Your task to perform on an android device: find which apps use the phone's location Image 0: 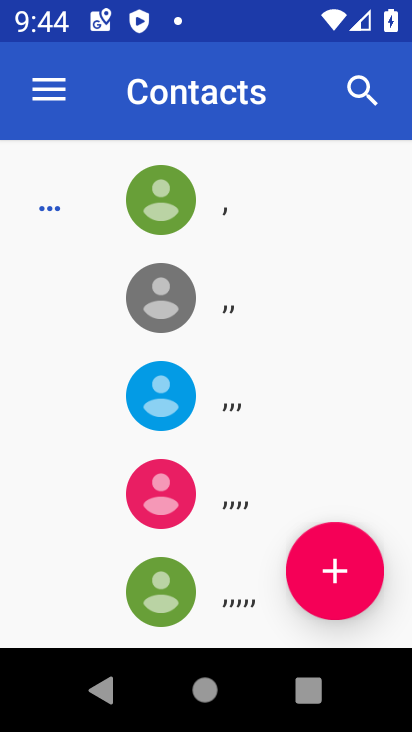
Step 0: press home button
Your task to perform on an android device: find which apps use the phone's location Image 1: 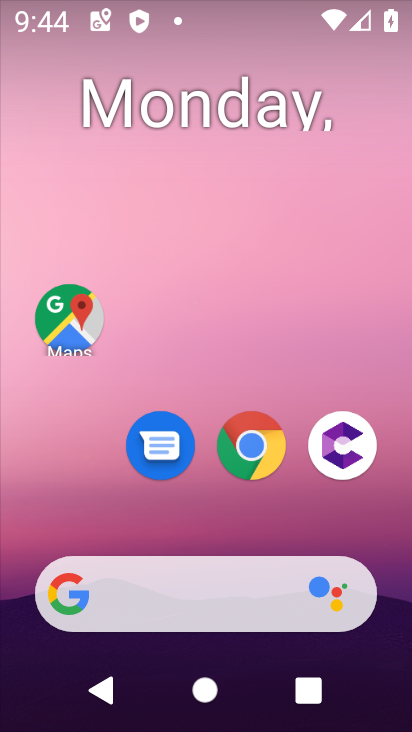
Step 1: drag from (213, 545) to (168, 73)
Your task to perform on an android device: find which apps use the phone's location Image 2: 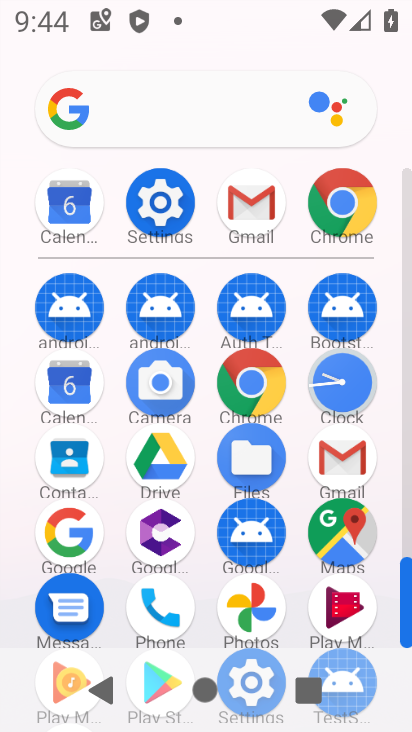
Step 2: click (160, 199)
Your task to perform on an android device: find which apps use the phone's location Image 3: 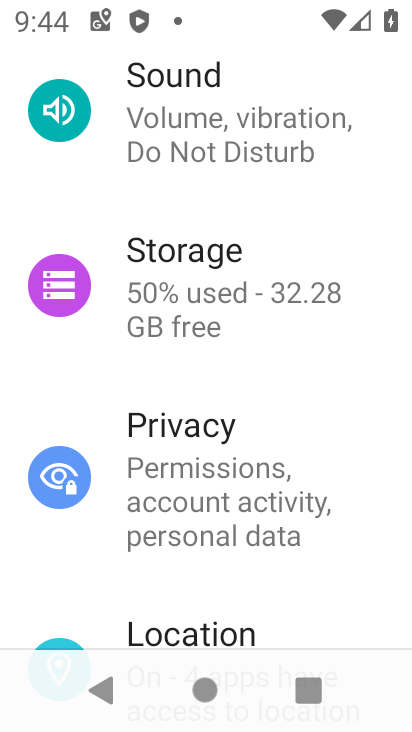
Step 3: click (198, 633)
Your task to perform on an android device: find which apps use the phone's location Image 4: 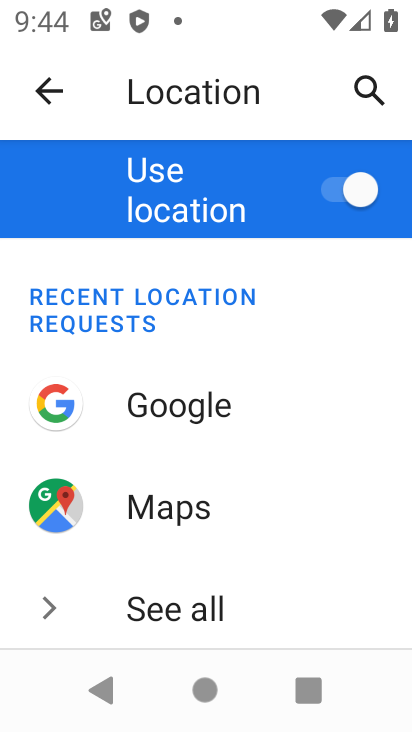
Step 4: drag from (295, 561) to (281, 100)
Your task to perform on an android device: find which apps use the phone's location Image 5: 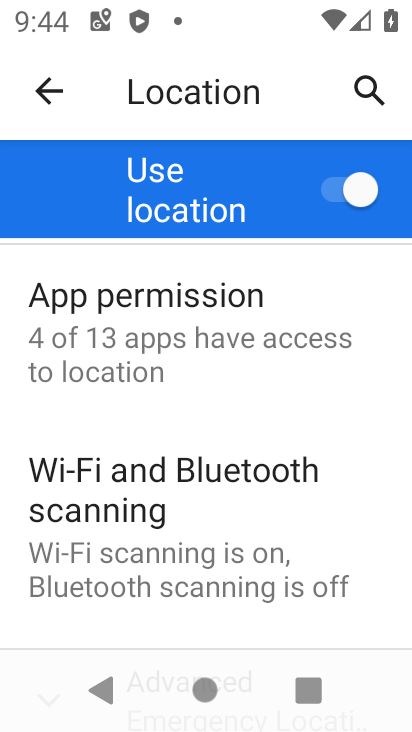
Step 5: click (179, 331)
Your task to perform on an android device: find which apps use the phone's location Image 6: 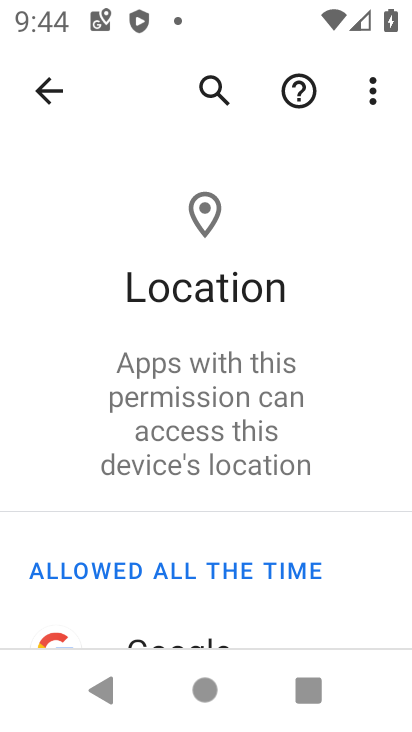
Step 6: task complete